Your task to perform on an android device: Open calendar and show me the first week of next month Image 0: 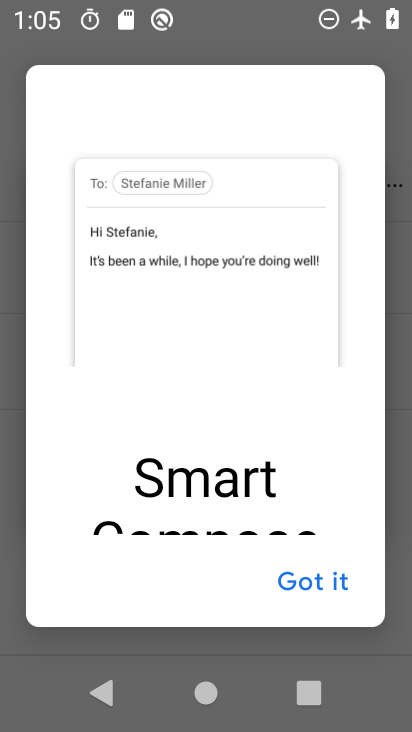
Step 0: press home button
Your task to perform on an android device: Open calendar and show me the first week of next month Image 1: 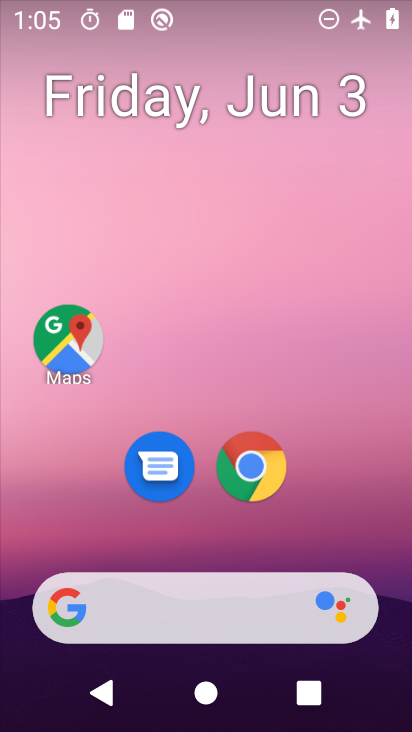
Step 1: drag from (178, 540) to (170, 163)
Your task to perform on an android device: Open calendar and show me the first week of next month Image 2: 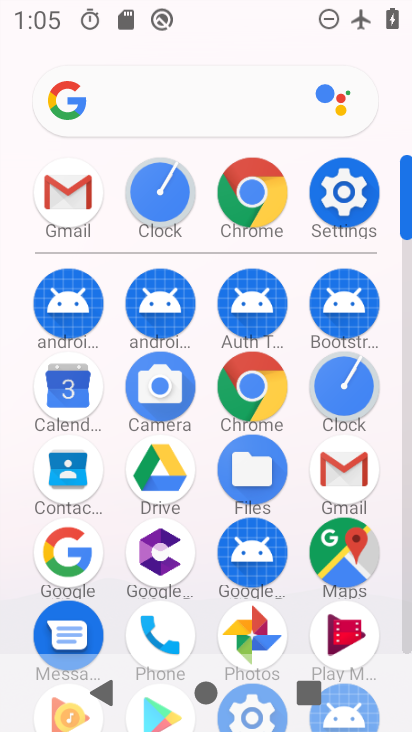
Step 2: click (88, 395)
Your task to perform on an android device: Open calendar and show me the first week of next month Image 3: 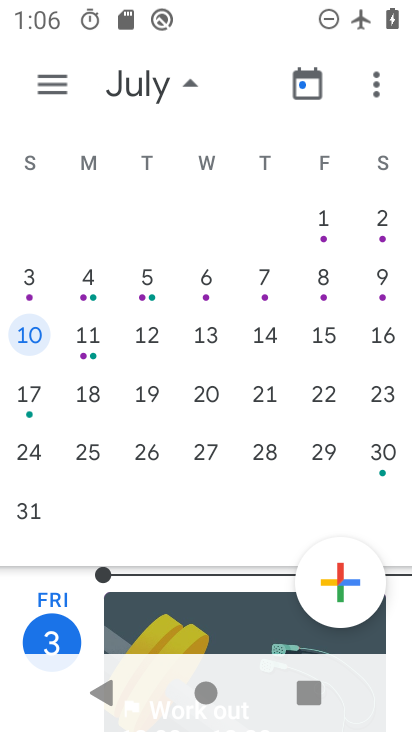
Step 3: click (318, 221)
Your task to perform on an android device: Open calendar and show me the first week of next month Image 4: 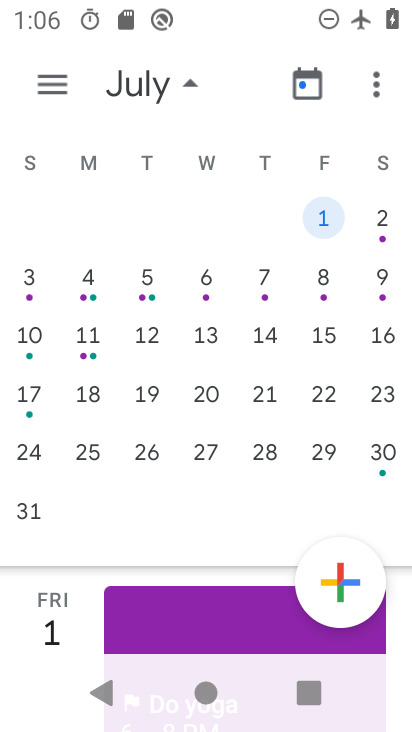
Step 4: task complete